Your task to perform on an android device: Open internet settings Image 0: 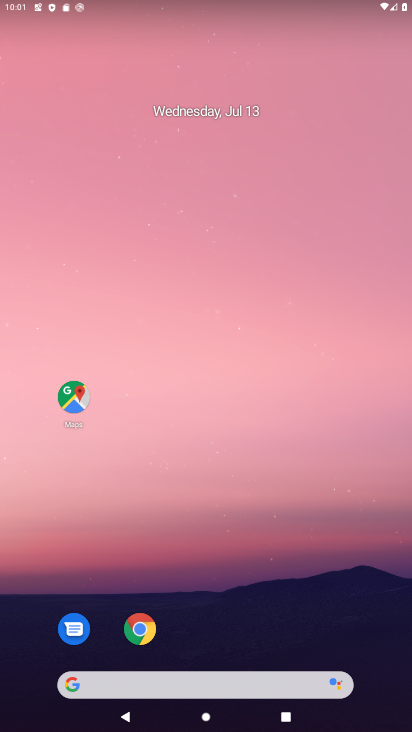
Step 0: press home button
Your task to perform on an android device: Open internet settings Image 1: 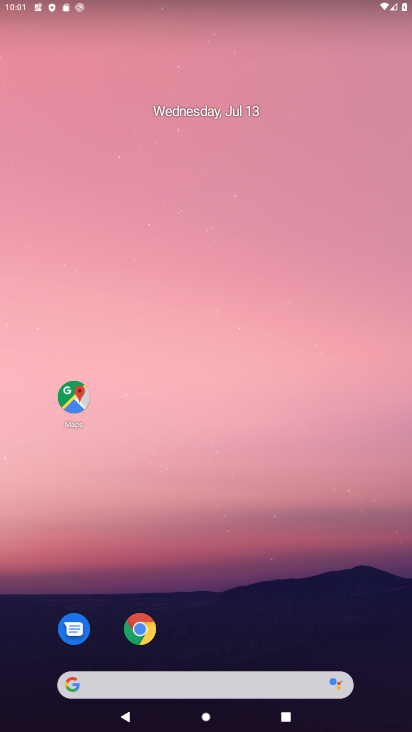
Step 1: drag from (226, 648) to (313, 199)
Your task to perform on an android device: Open internet settings Image 2: 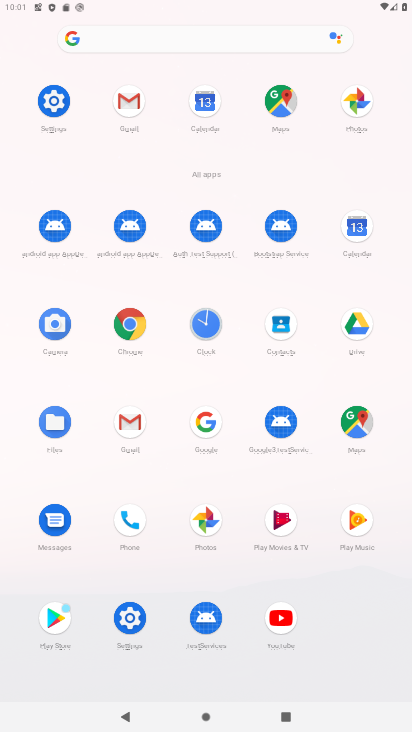
Step 2: click (51, 96)
Your task to perform on an android device: Open internet settings Image 3: 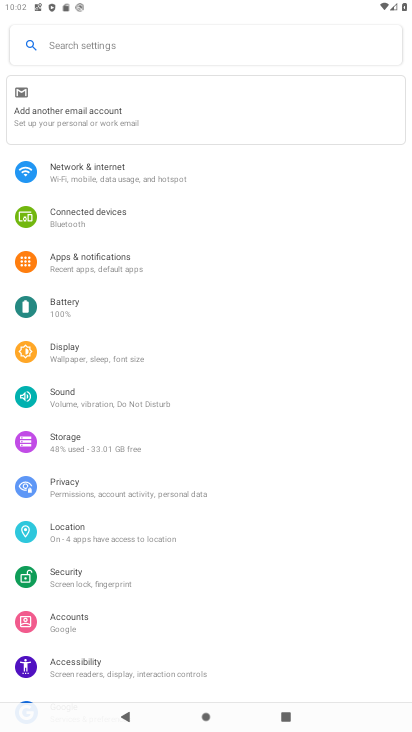
Step 3: click (128, 165)
Your task to perform on an android device: Open internet settings Image 4: 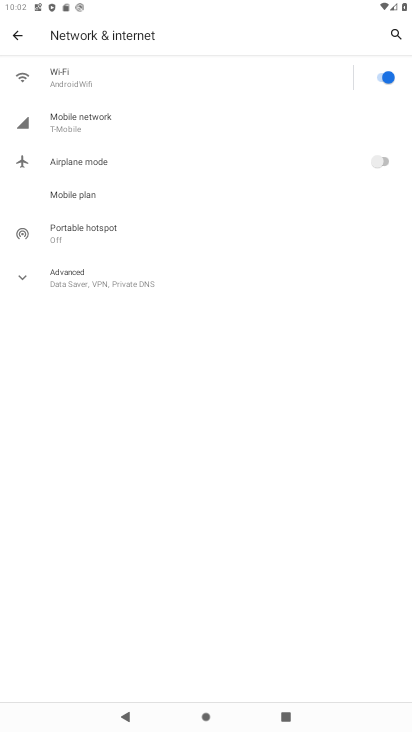
Step 4: click (61, 273)
Your task to perform on an android device: Open internet settings Image 5: 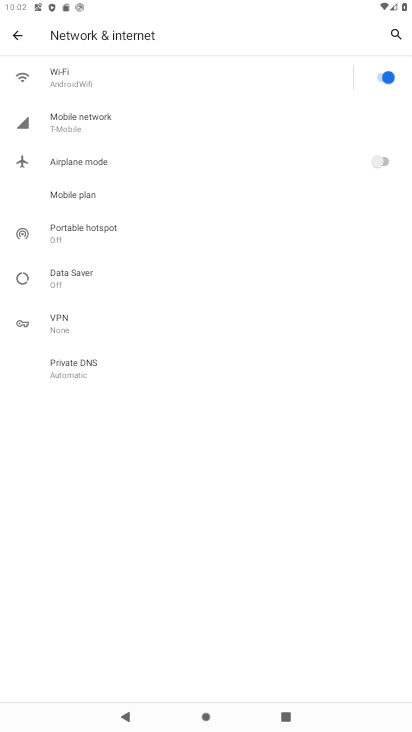
Step 5: task complete